Your task to perform on an android device: Go to display settings Image 0: 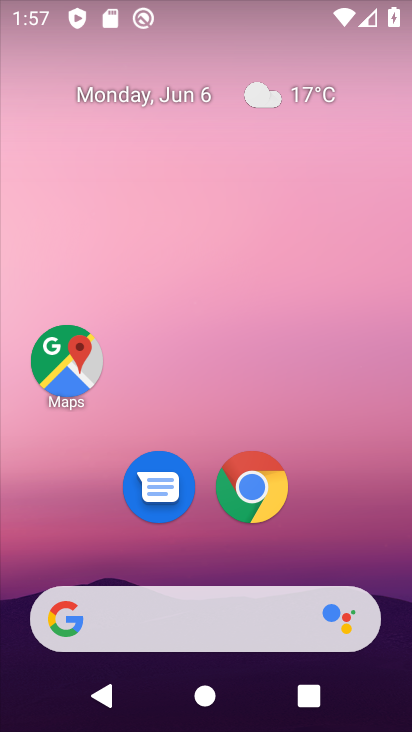
Step 0: drag from (308, 548) to (399, 35)
Your task to perform on an android device: Go to display settings Image 1: 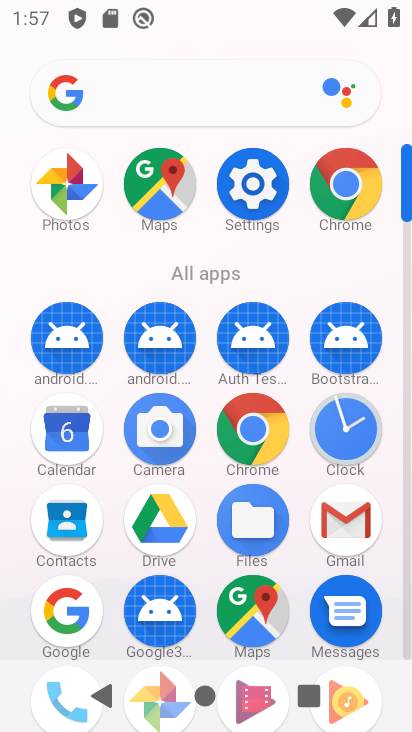
Step 1: click (253, 195)
Your task to perform on an android device: Go to display settings Image 2: 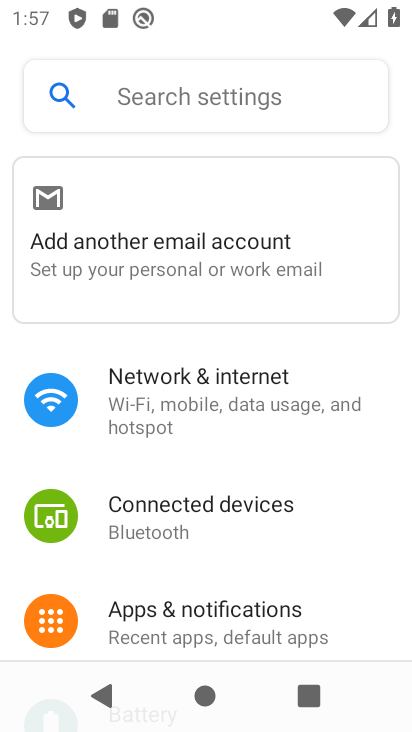
Step 2: drag from (283, 597) to (343, 282)
Your task to perform on an android device: Go to display settings Image 3: 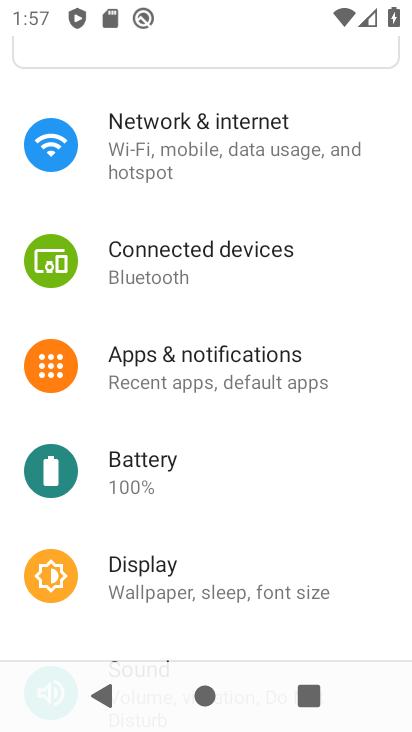
Step 3: click (155, 581)
Your task to perform on an android device: Go to display settings Image 4: 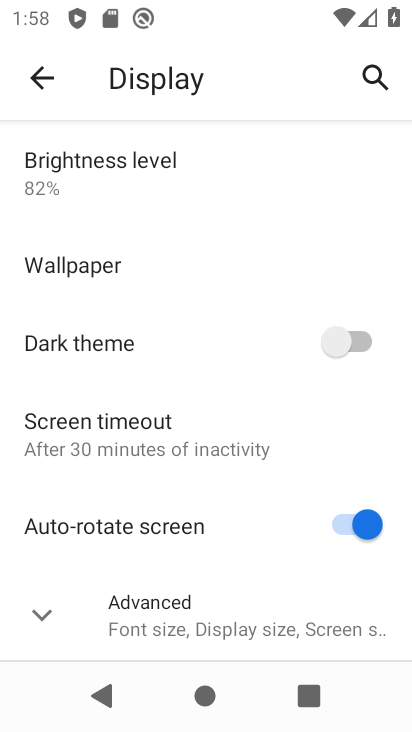
Step 4: drag from (243, 587) to (277, 215)
Your task to perform on an android device: Go to display settings Image 5: 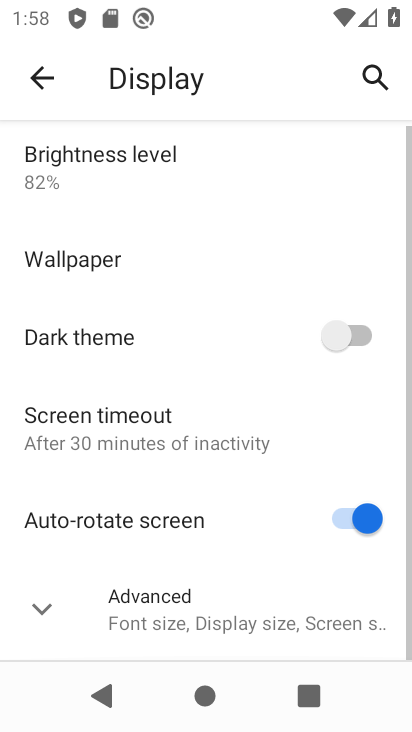
Step 5: click (37, 82)
Your task to perform on an android device: Go to display settings Image 6: 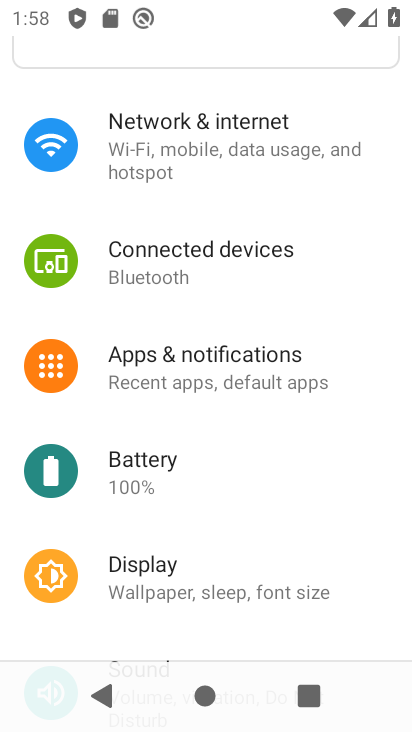
Step 6: click (347, 330)
Your task to perform on an android device: Go to display settings Image 7: 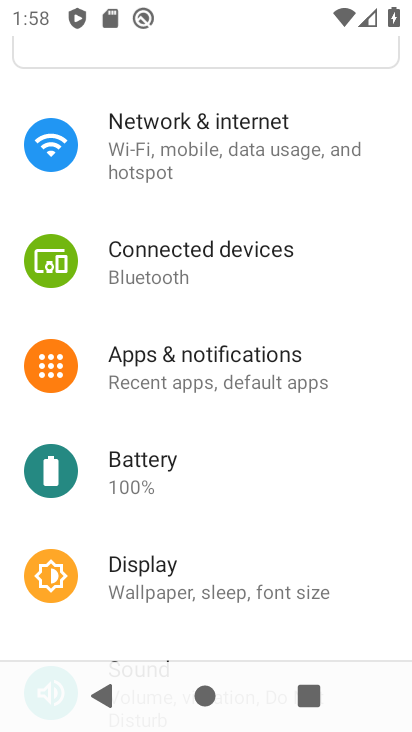
Step 7: task complete